Your task to perform on an android device: Search for usb-c to usb-a on ebay, select the first entry, add it to the cart, then select checkout. Image 0: 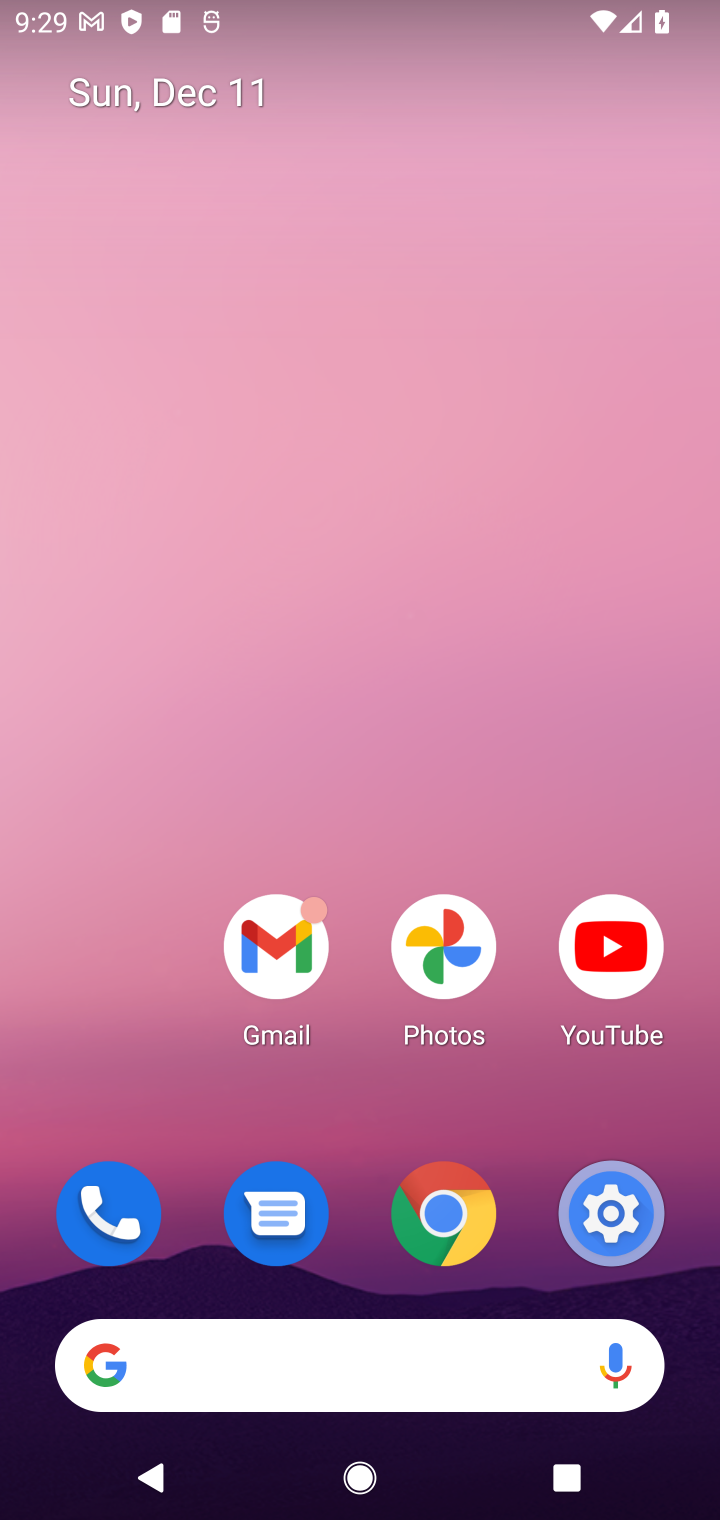
Step 0: click (288, 1369)
Your task to perform on an android device: Search for usb-c to usb-a on ebay, select the first entry, add it to the cart, then select checkout. Image 1: 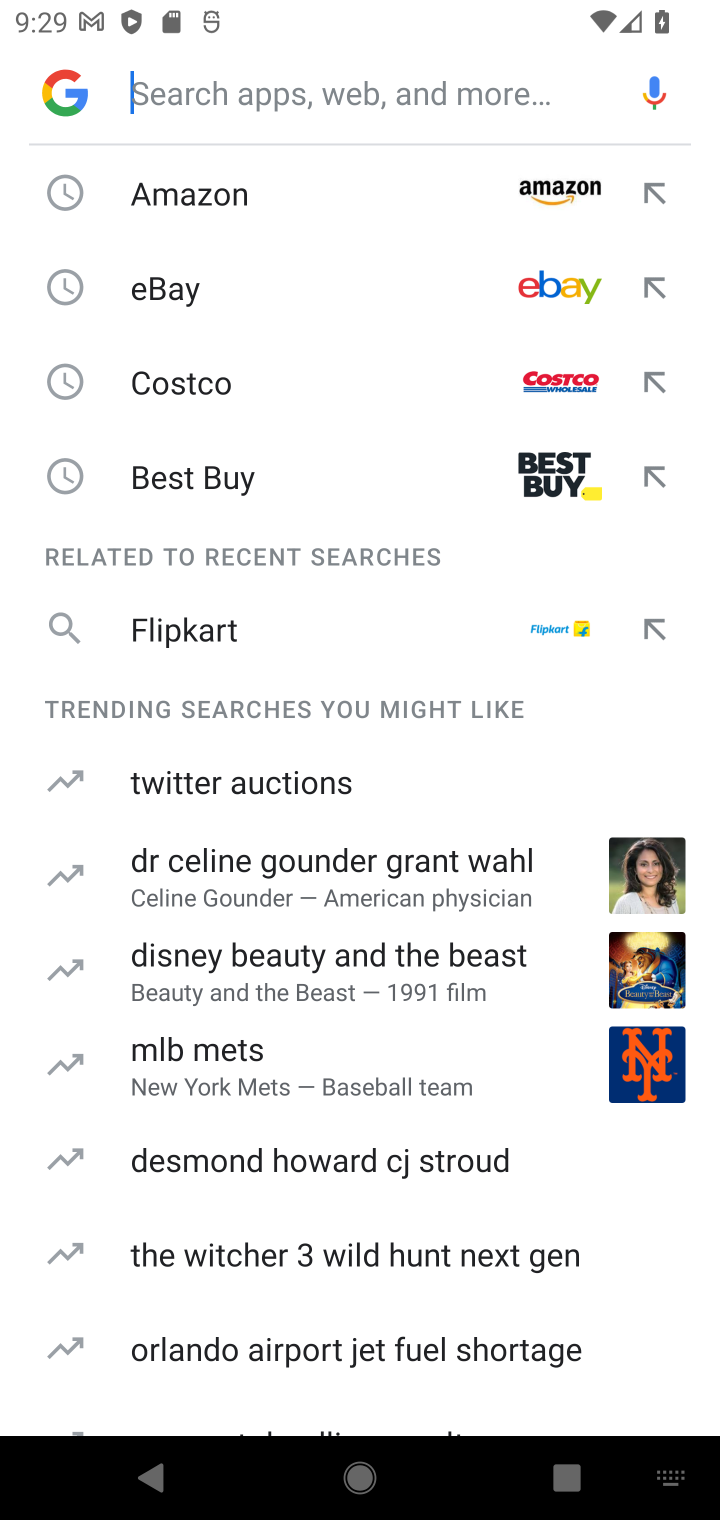
Step 1: type "ebay"
Your task to perform on an android device: Search for usb-c to usb-a on ebay, select the first entry, add it to the cart, then select checkout. Image 2: 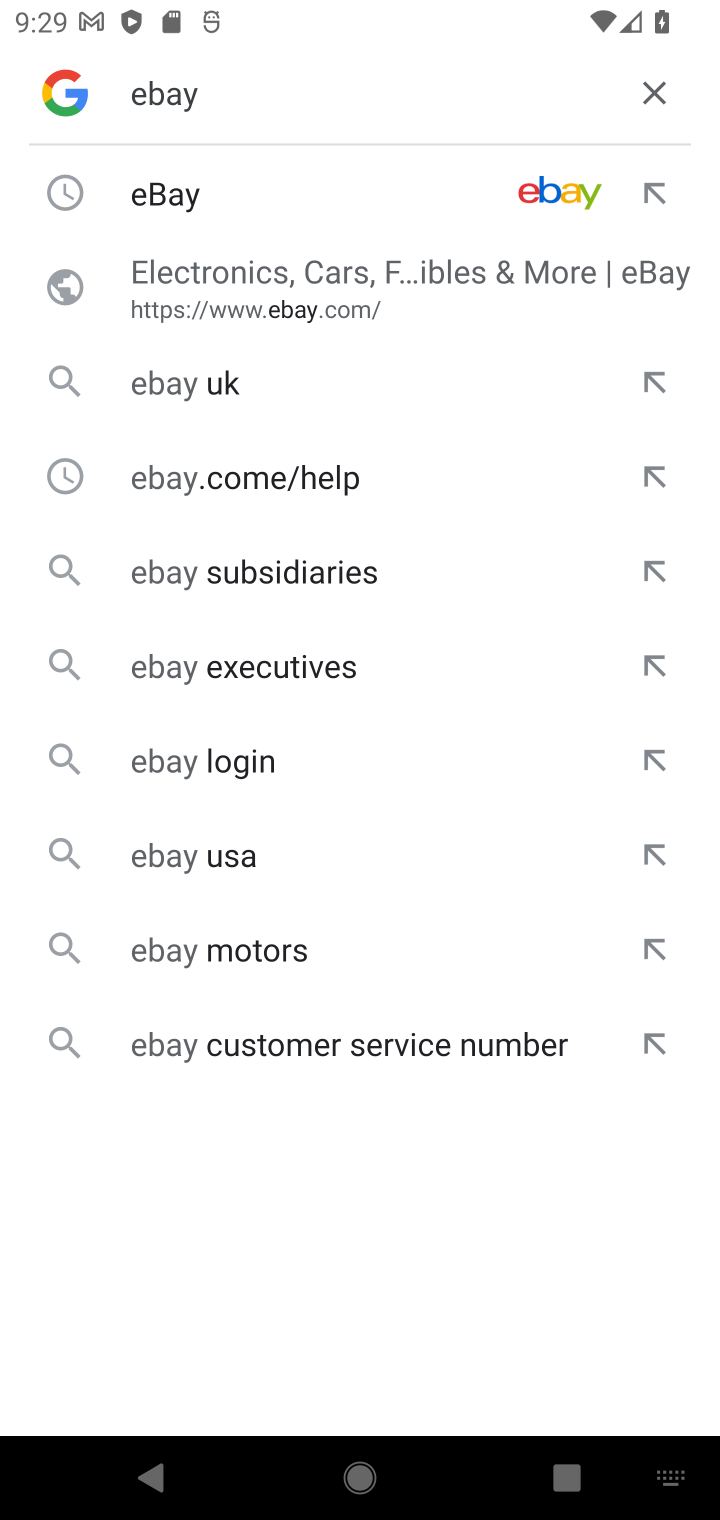
Step 2: click (312, 180)
Your task to perform on an android device: Search for usb-c to usb-a on ebay, select the first entry, add it to the cart, then select checkout. Image 3: 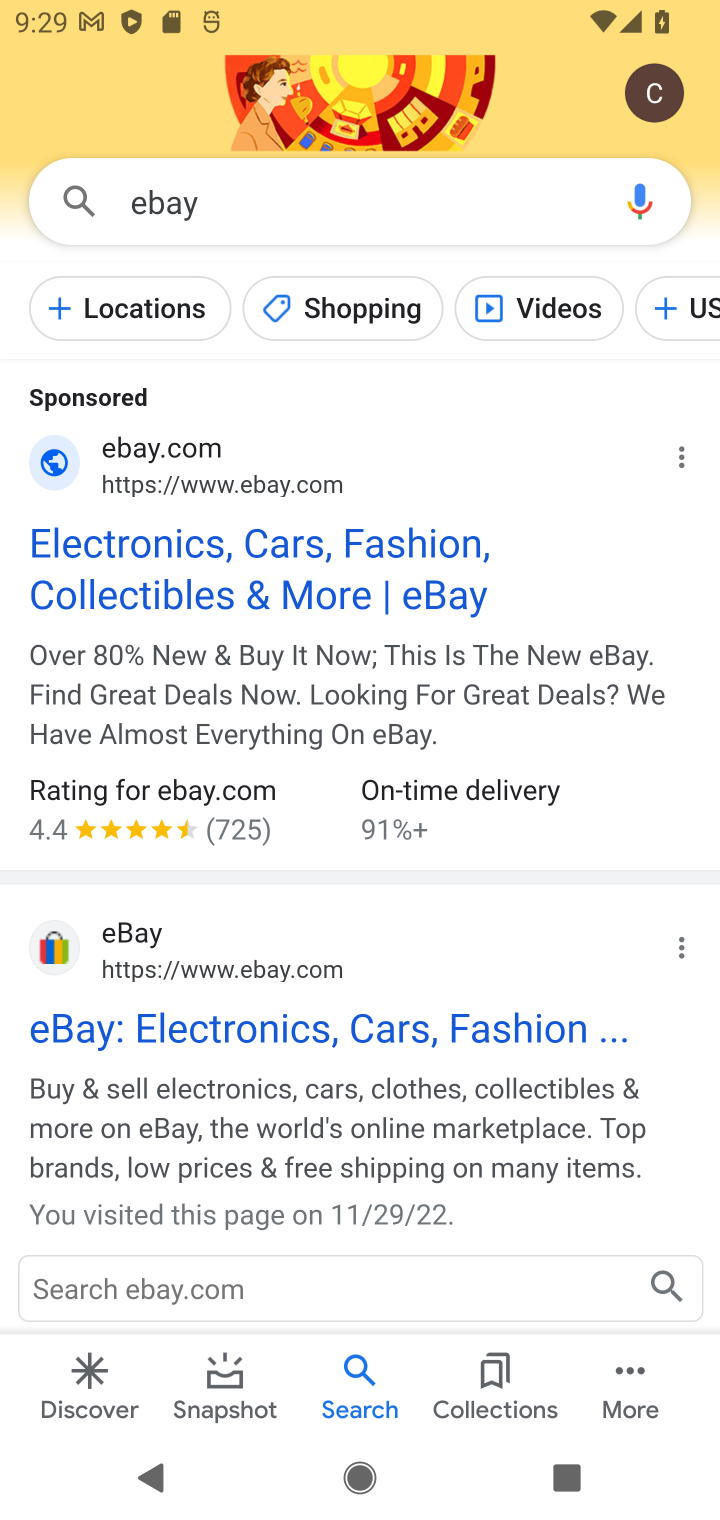
Step 3: click (250, 624)
Your task to perform on an android device: Search for usb-c to usb-a on ebay, select the first entry, add it to the cart, then select checkout. Image 4: 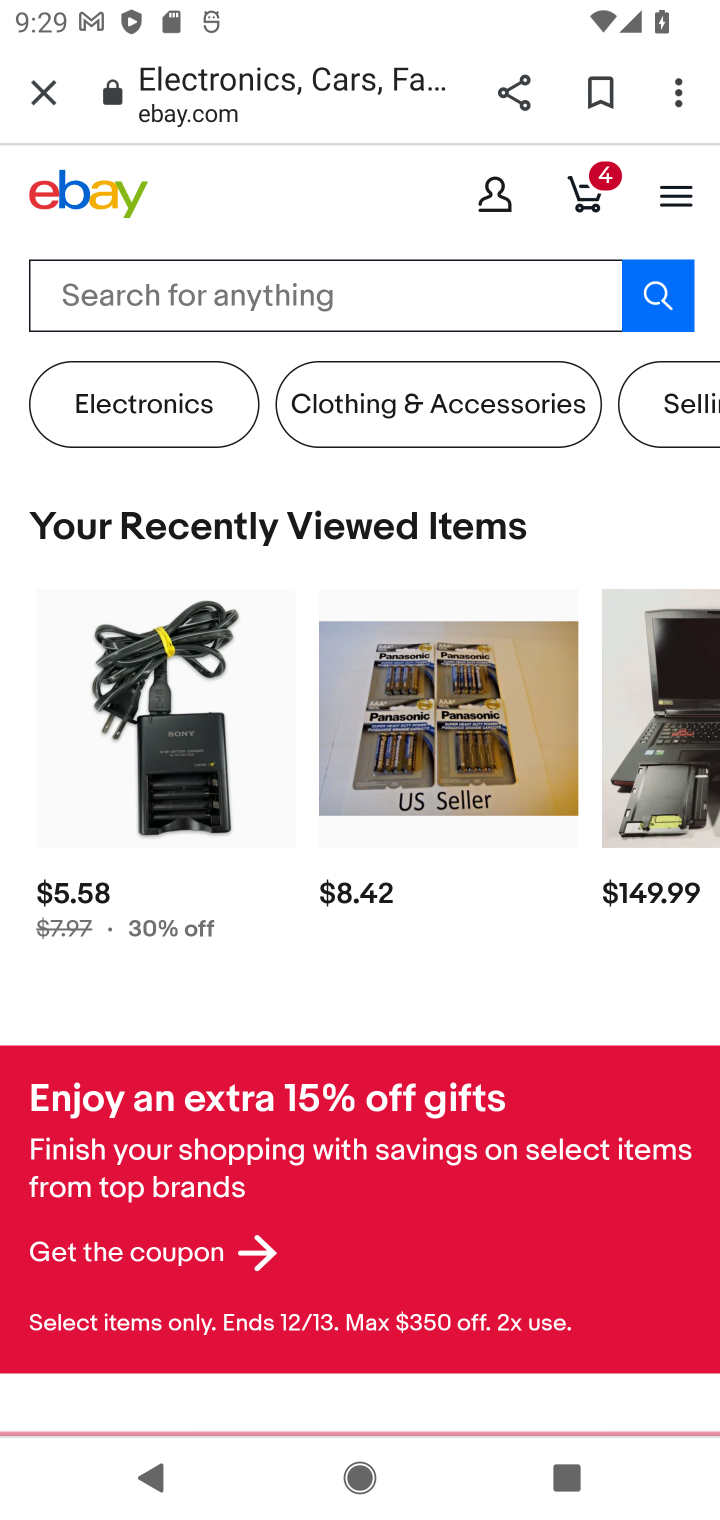
Step 4: click (395, 318)
Your task to perform on an android device: Search for usb-c to usb-a on ebay, select the first entry, add it to the cart, then select checkout. Image 5: 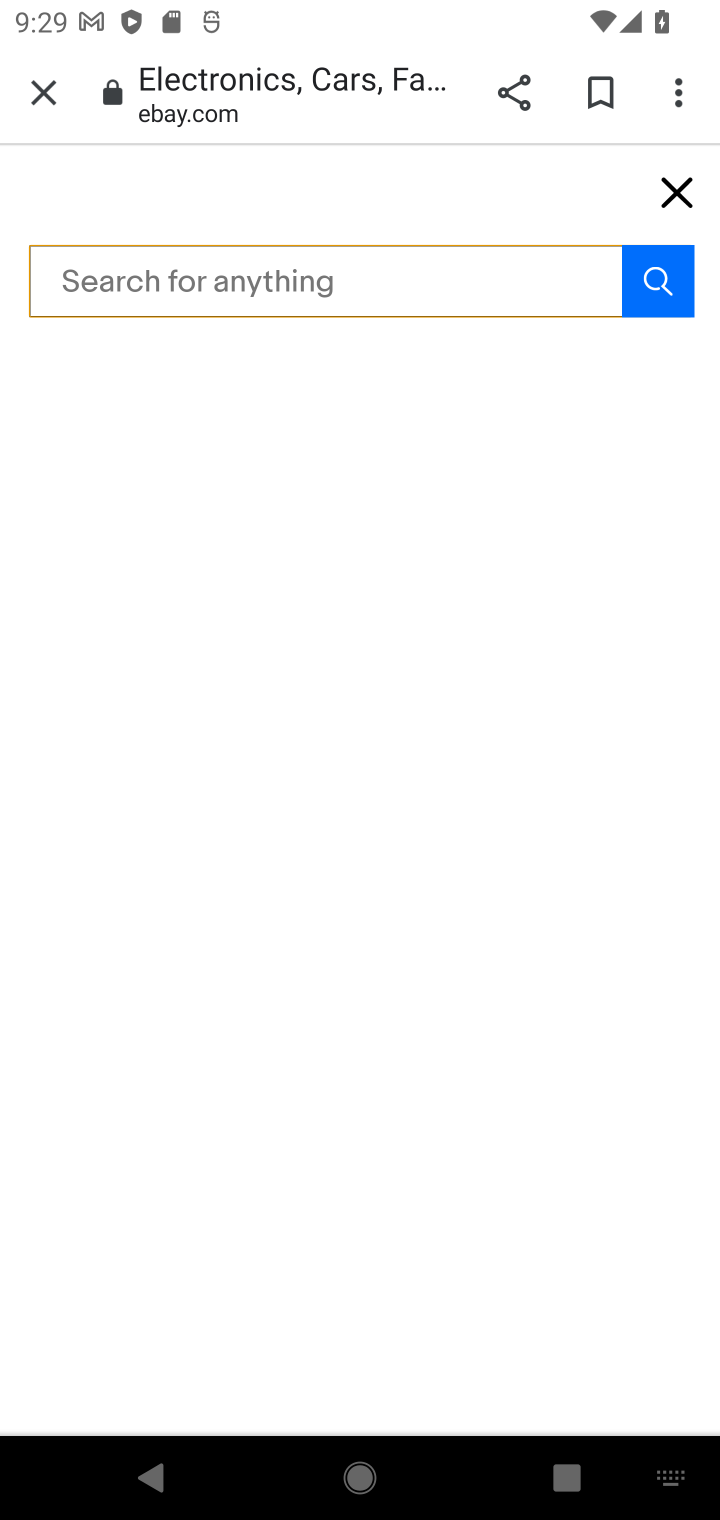
Step 5: type "usb-c to usb-a"
Your task to perform on an android device: Search for usb-c to usb-a on ebay, select the first entry, add it to the cart, then select checkout. Image 6: 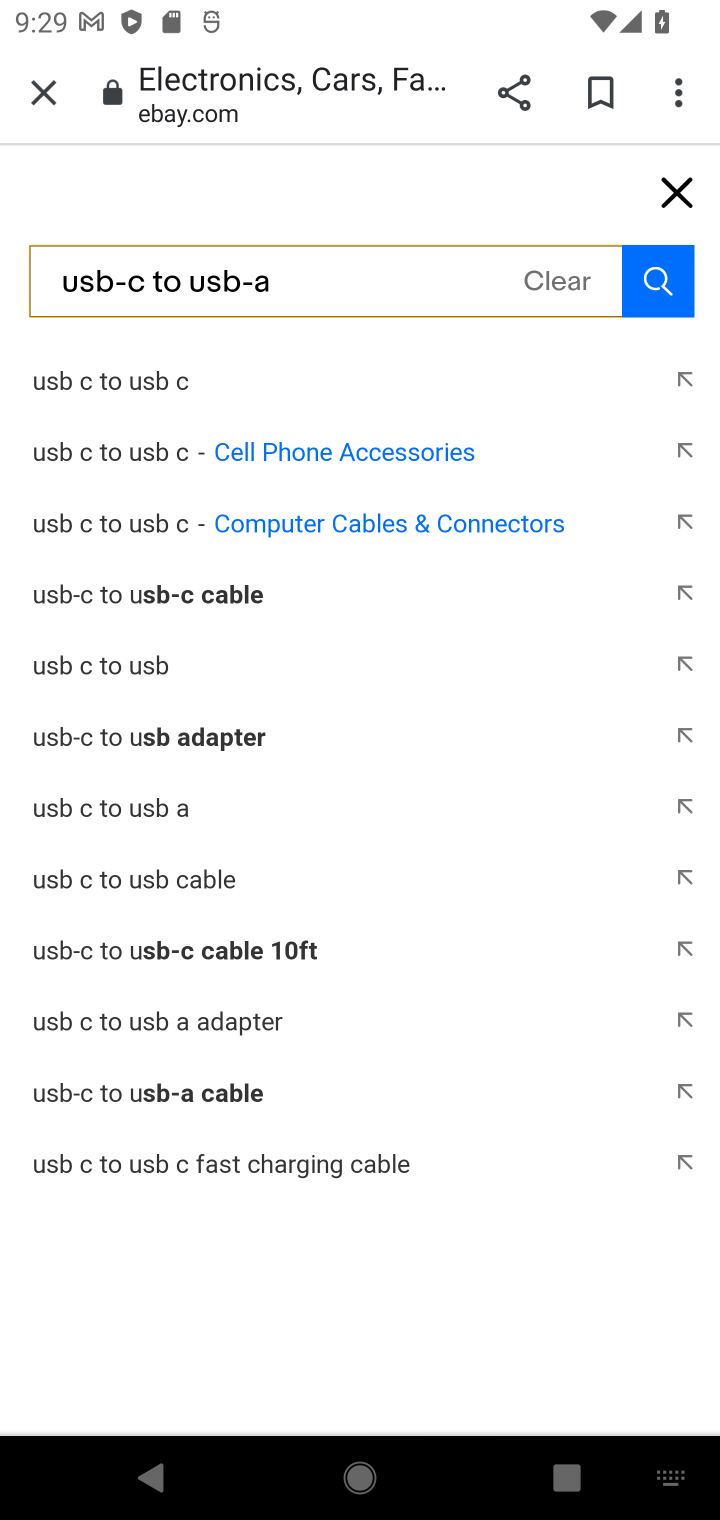
Step 6: click (650, 288)
Your task to perform on an android device: Search for usb-c to usb-a on ebay, select the first entry, add it to the cart, then select checkout. Image 7: 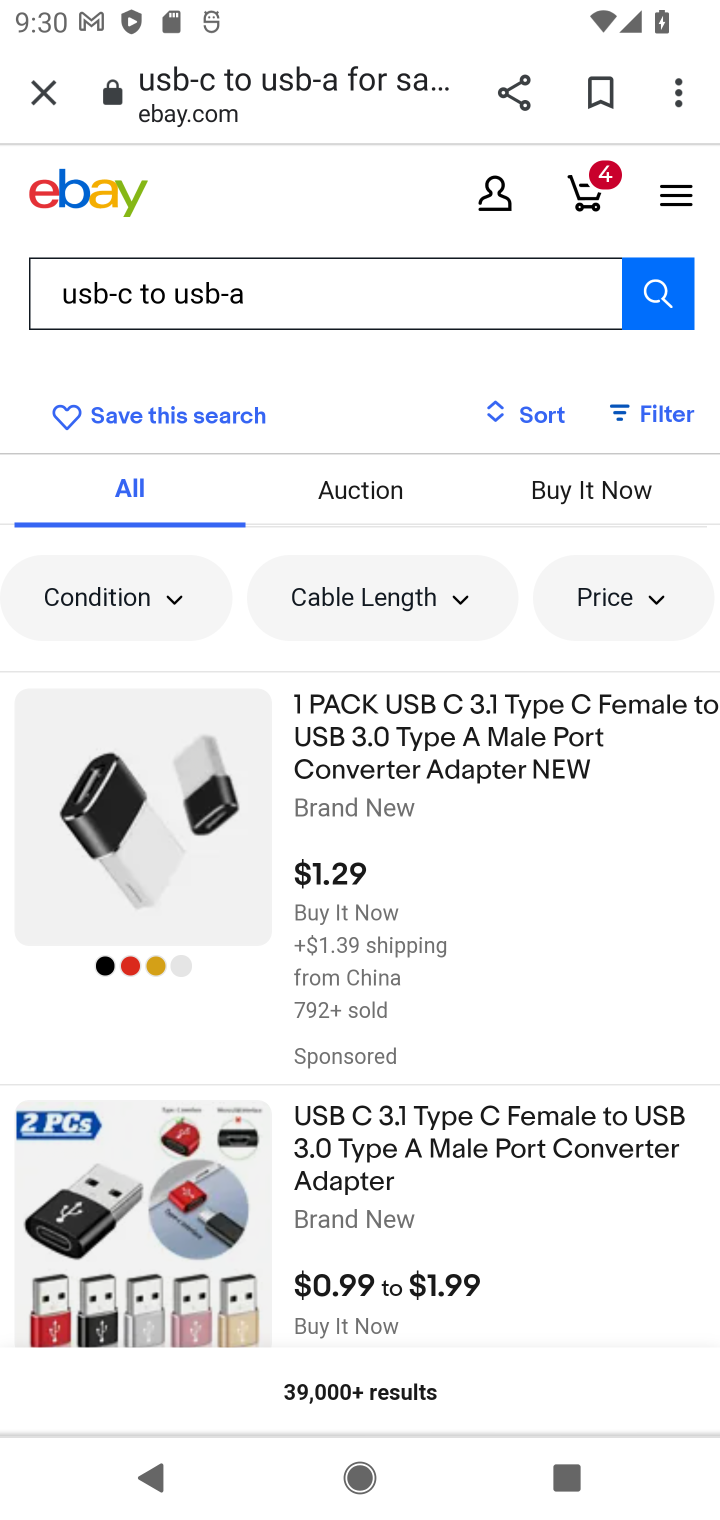
Step 7: click (514, 720)
Your task to perform on an android device: Search for usb-c to usb-a on ebay, select the first entry, add it to the cart, then select checkout. Image 8: 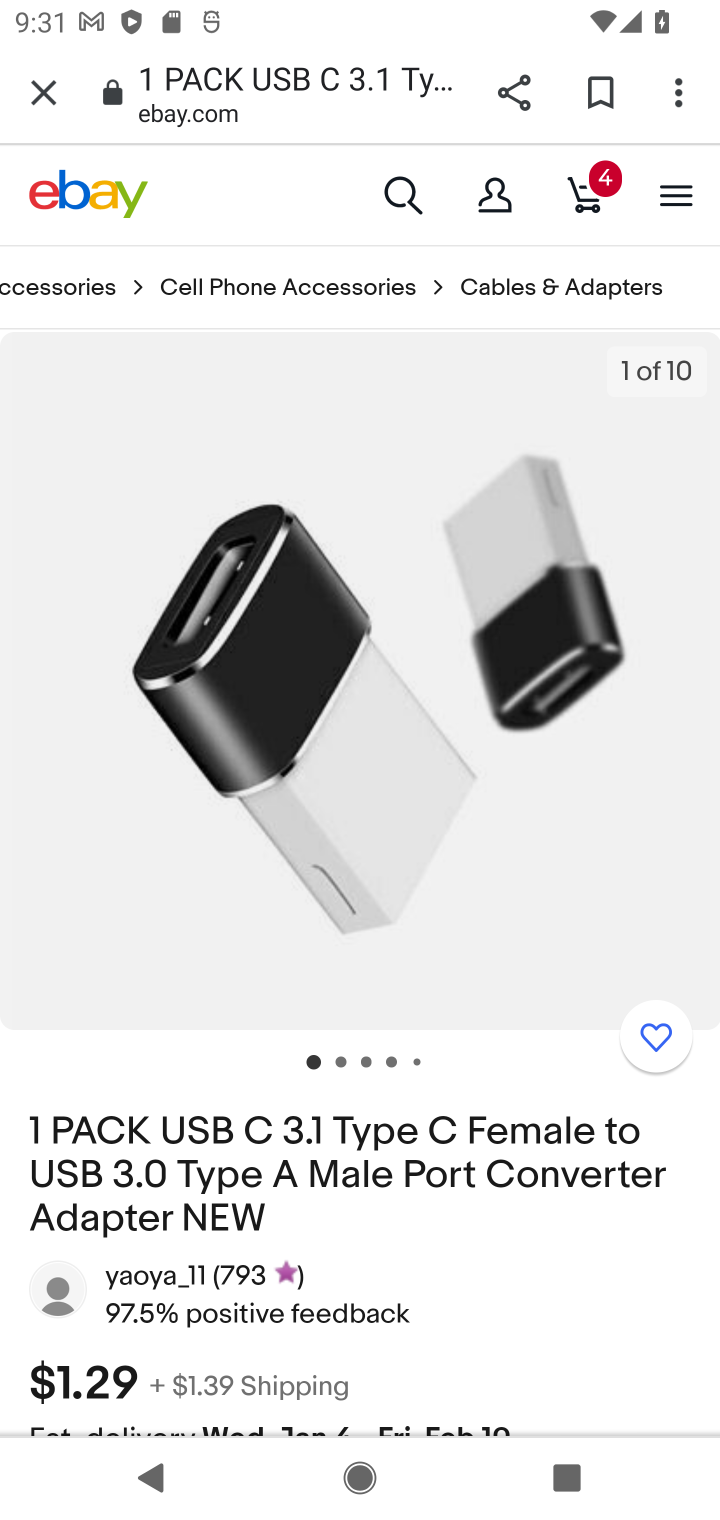
Step 8: drag from (381, 1253) to (374, 661)
Your task to perform on an android device: Search for usb-c to usb-a on ebay, select the first entry, add it to the cart, then select checkout. Image 9: 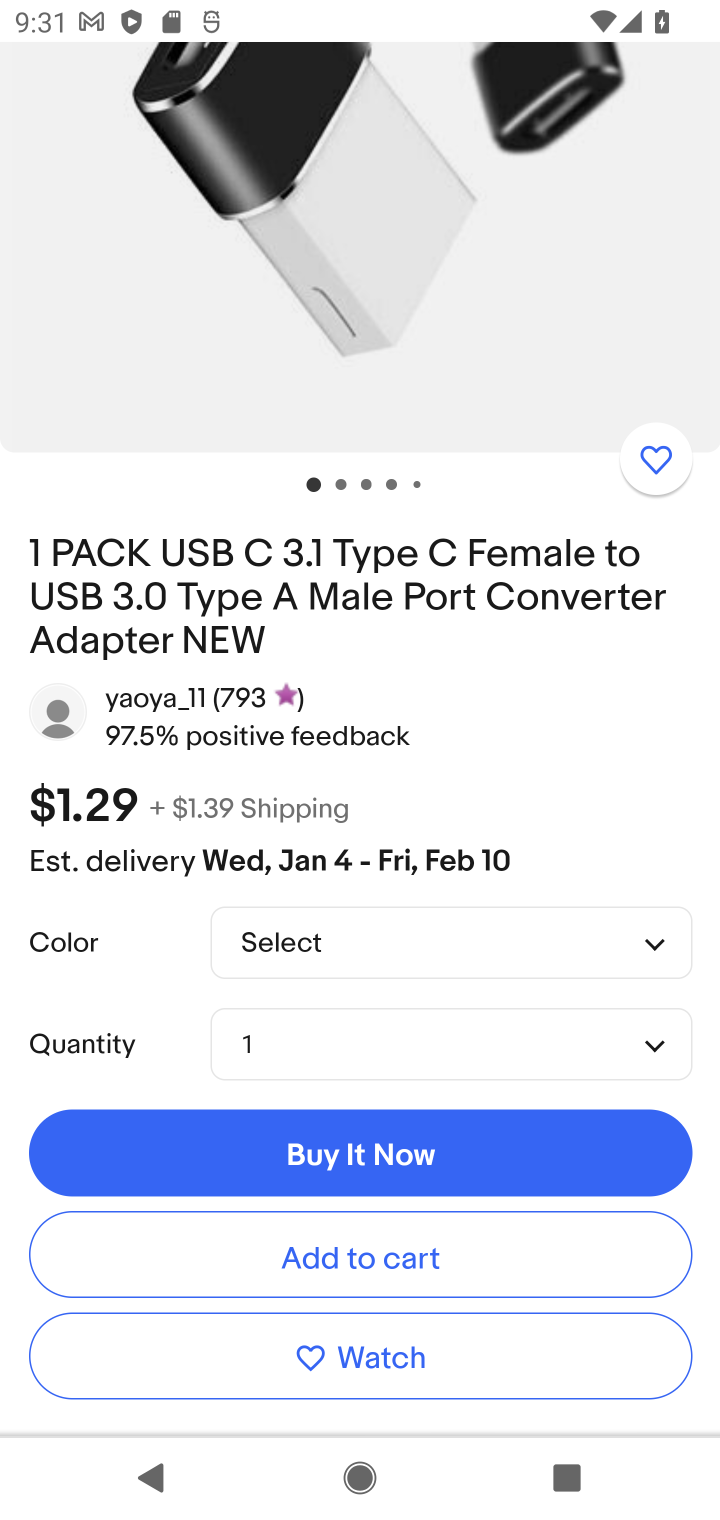
Step 9: click (311, 1248)
Your task to perform on an android device: Search for usb-c to usb-a on ebay, select the first entry, add it to the cart, then select checkout. Image 10: 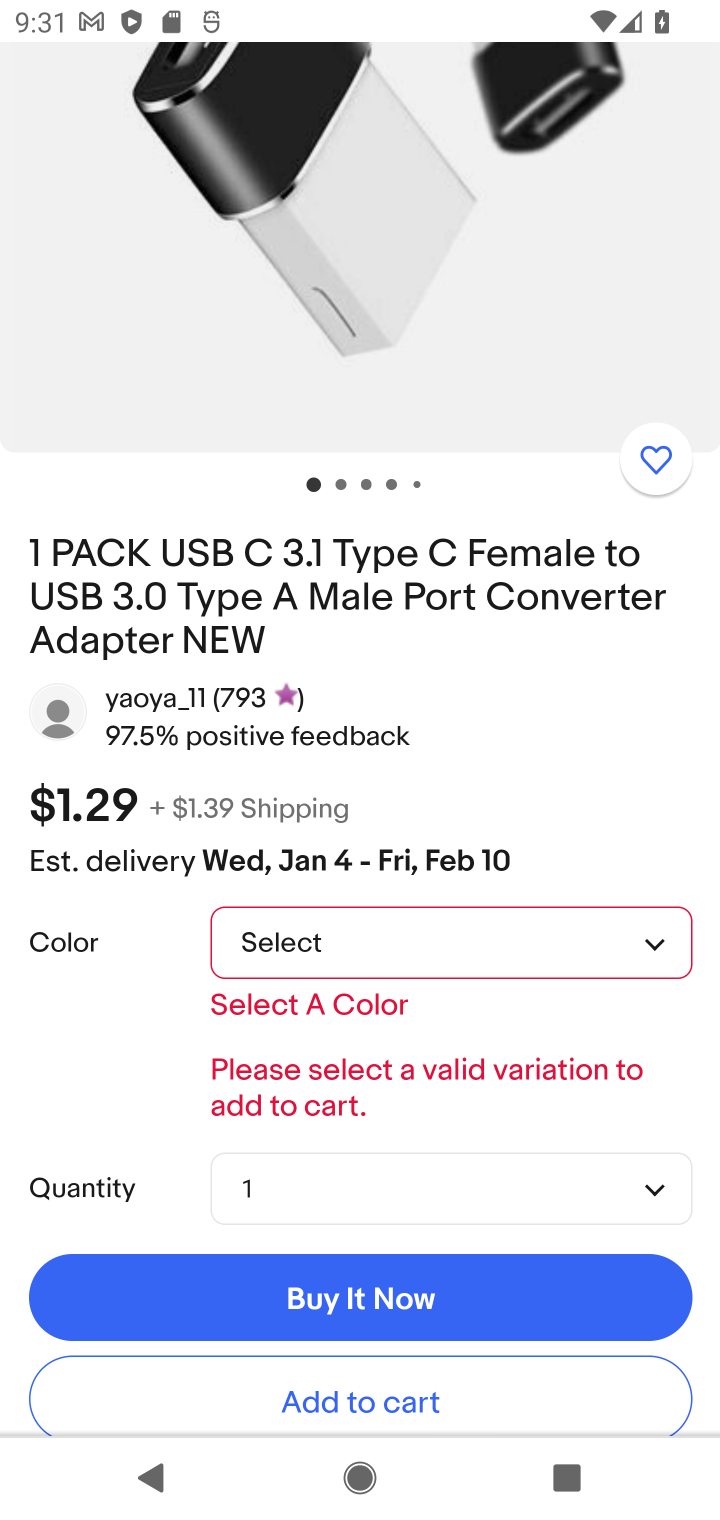
Step 10: task complete